Your task to perform on an android device: Is it going to rain tomorrow? Image 0: 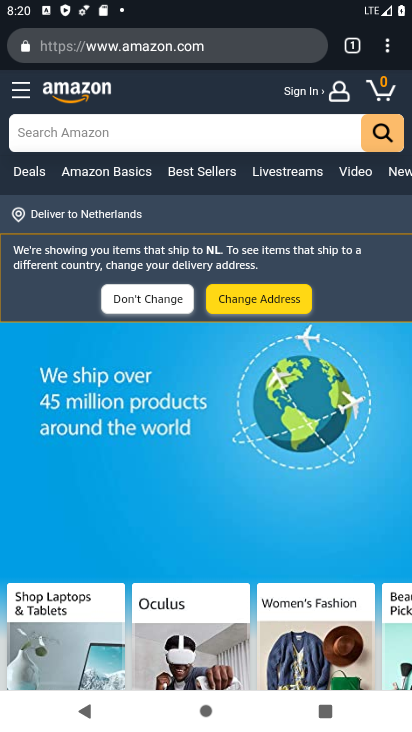
Step 0: press home button
Your task to perform on an android device: Is it going to rain tomorrow? Image 1: 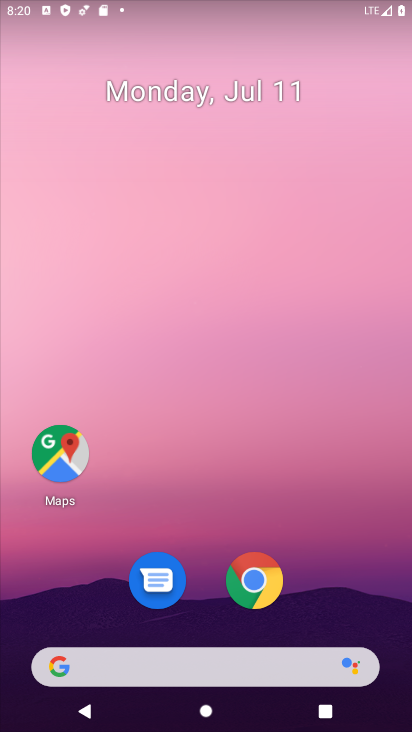
Step 1: click (167, 662)
Your task to perform on an android device: Is it going to rain tomorrow? Image 2: 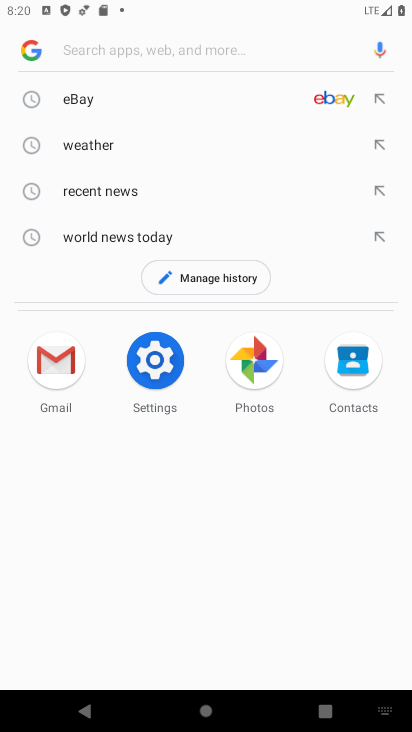
Step 2: click (72, 142)
Your task to perform on an android device: Is it going to rain tomorrow? Image 3: 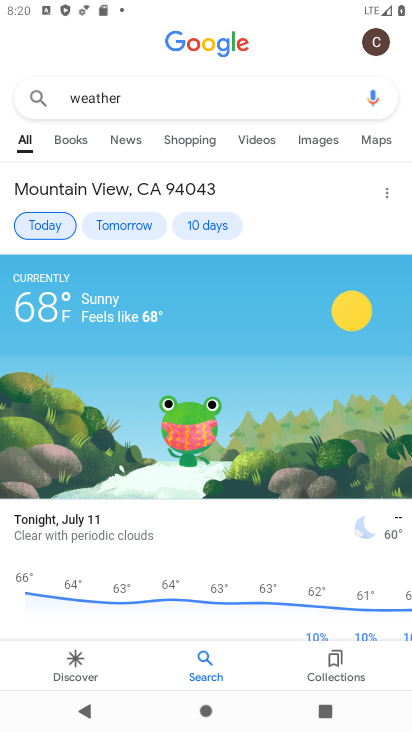
Step 3: click (53, 226)
Your task to perform on an android device: Is it going to rain tomorrow? Image 4: 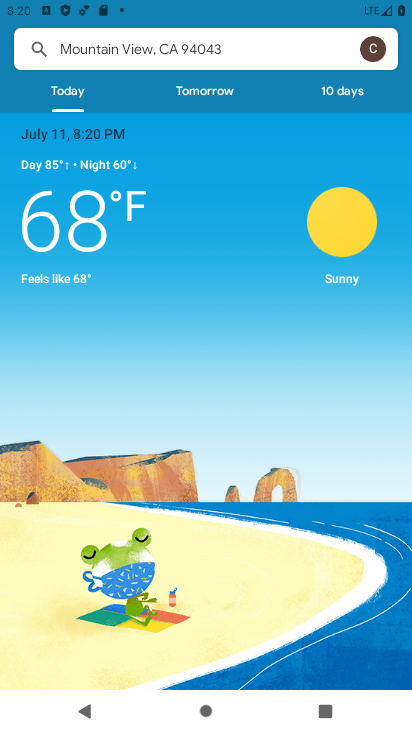
Step 4: click (219, 95)
Your task to perform on an android device: Is it going to rain tomorrow? Image 5: 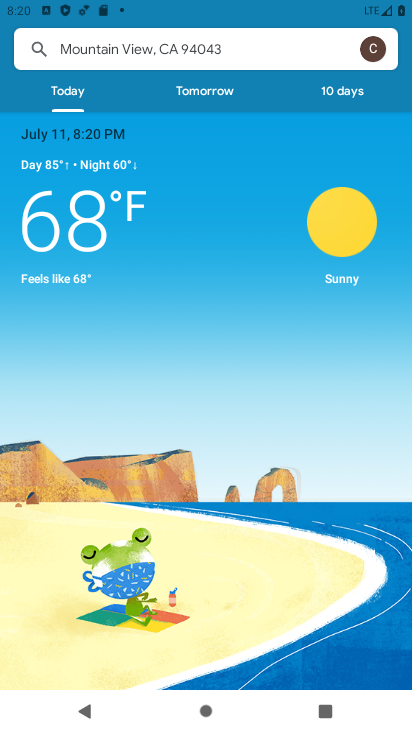
Step 5: click (214, 90)
Your task to perform on an android device: Is it going to rain tomorrow? Image 6: 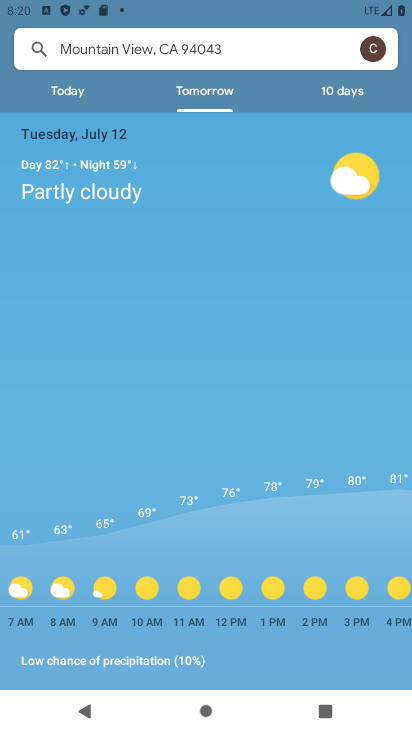
Step 6: task complete